Your task to perform on an android device: turn on improve location accuracy Image 0: 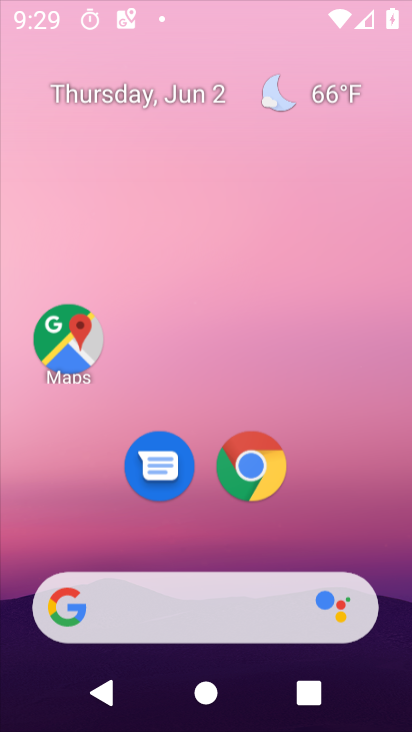
Step 0: press home button
Your task to perform on an android device: turn on improve location accuracy Image 1: 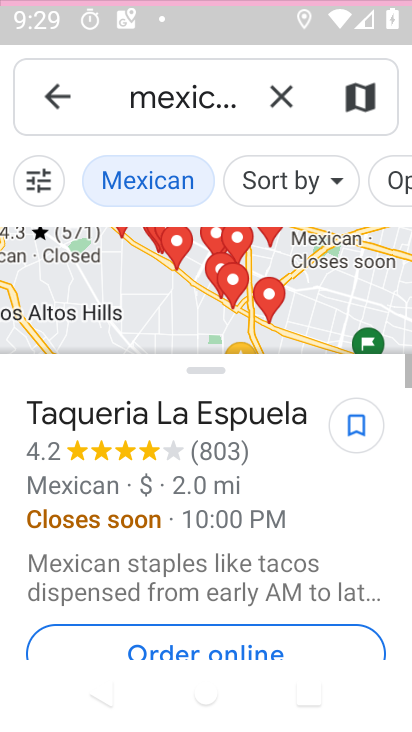
Step 1: drag from (21, 652) to (289, 247)
Your task to perform on an android device: turn on improve location accuracy Image 2: 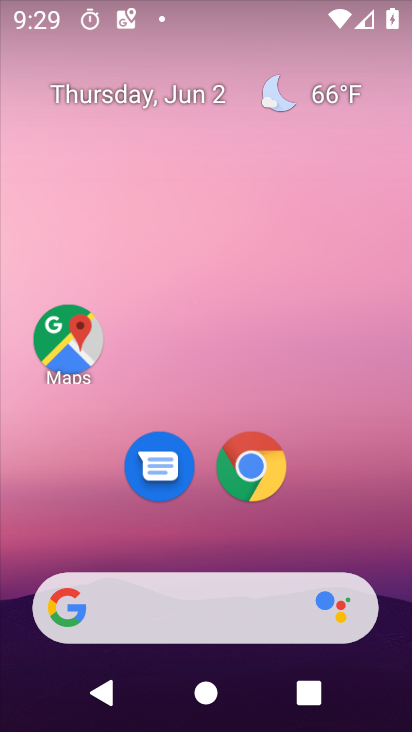
Step 2: drag from (23, 584) to (359, 73)
Your task to perform on an android device: turn on improve location accuracy Image 3: 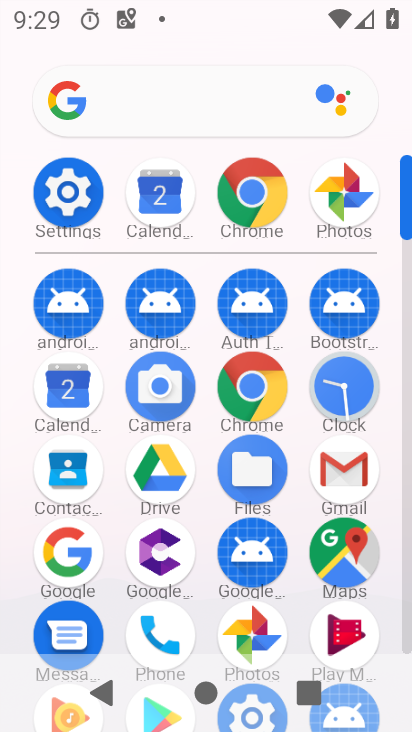
Step 3: click (88, 212)
Your task to perform on an android device: turn on improve location accuracy Image 4: 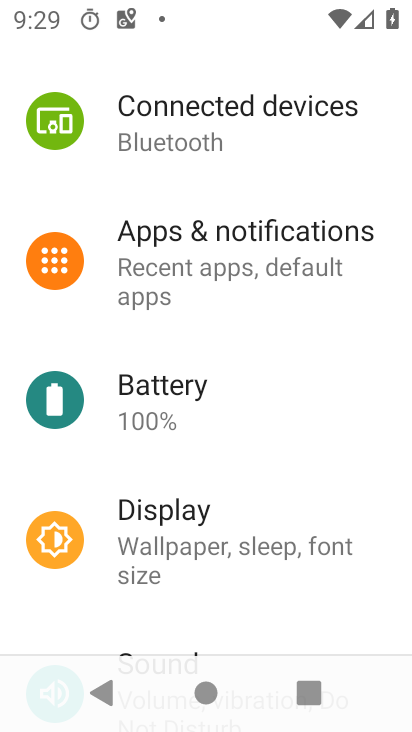
Step 4: drag from (3, 486) to (296, 186)
Your task to perform on an android device: turn on improve location accuracy Image 5: 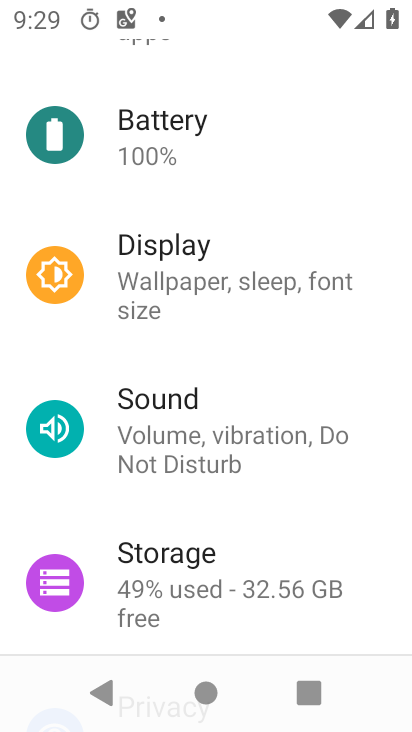
Step 5: drag from (204, 248) to (138, 580)
Your task to perform on an android device: turn on improve location accuracy Image 6: 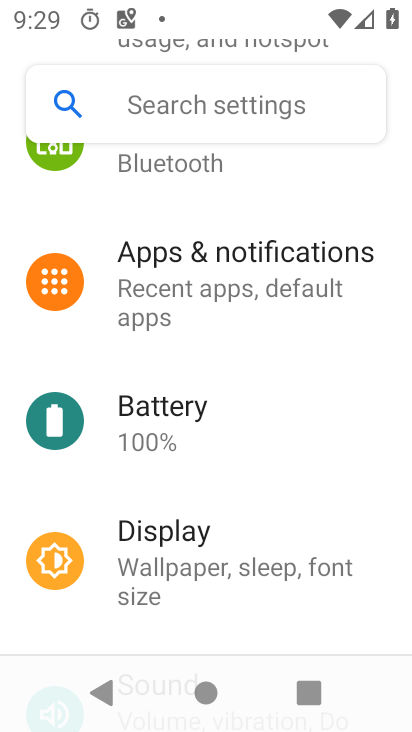
Step 6: drag from (216, 246) to (165, 600)
Your task to perform on an android device: turn on improve location accuracy Image 7: 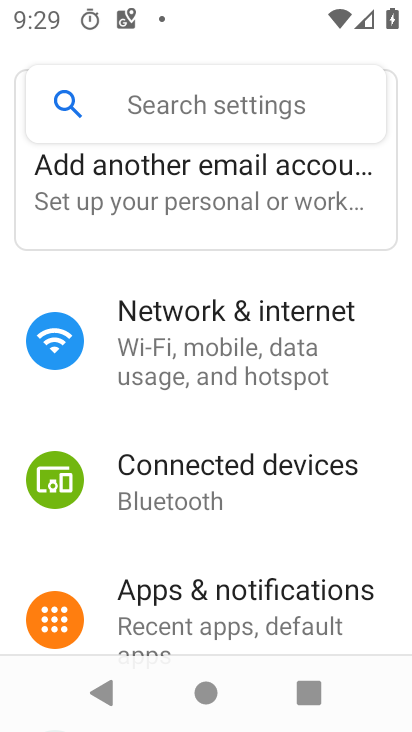
Step 7: drag from (3, 596) to (276, 212)
Your task to perform on an android device: turn on improve location accuracy Image 8: 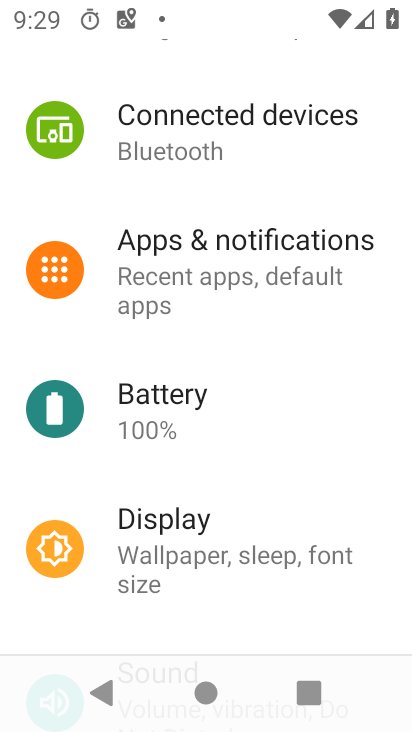
Step 8: drag from (69, 578) to (287, 261)
Your task to perform on an android device: turn on improve location accuracy Image 9: 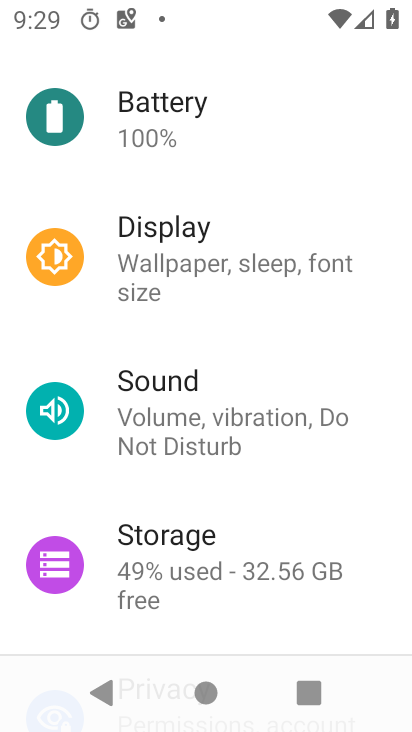
Step 9: drag from (11, 518) to (279, 163)
Your task to perform on an android device: turn on improve location accuracy Image 10: 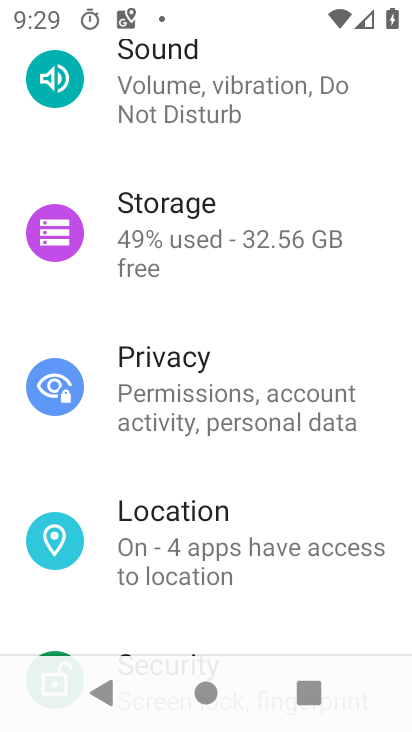
Step 10: click (132, 536)
Your task to perform on an android device: turn on improve location accuracy Image 11: 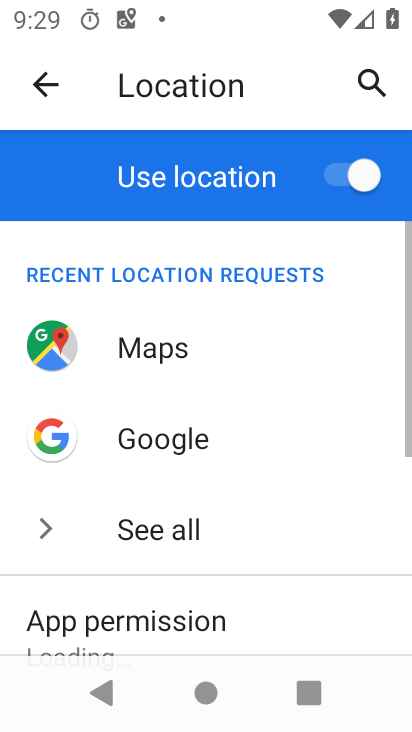
Step 11: drag from (10, 576) to (284, 257)
Your task to perform on an android device: turn on improve location accuracy Image 12: 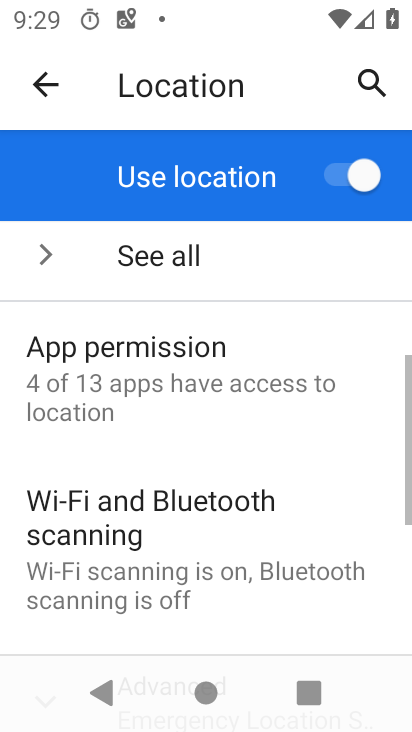
Step 12: drag from (62, 567) to (387, 314)
Your task to perform on an android device: turn on improve location accuracy Image 13: 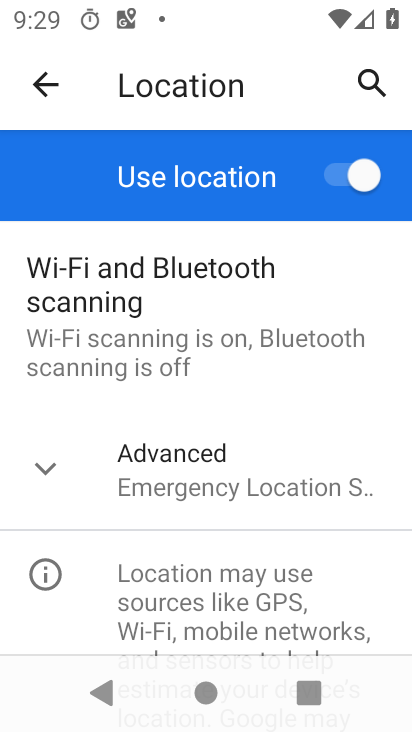
Step 13: click (144, 490)
Your task to perform on an android device: turn on improve location accuracy Image 14: 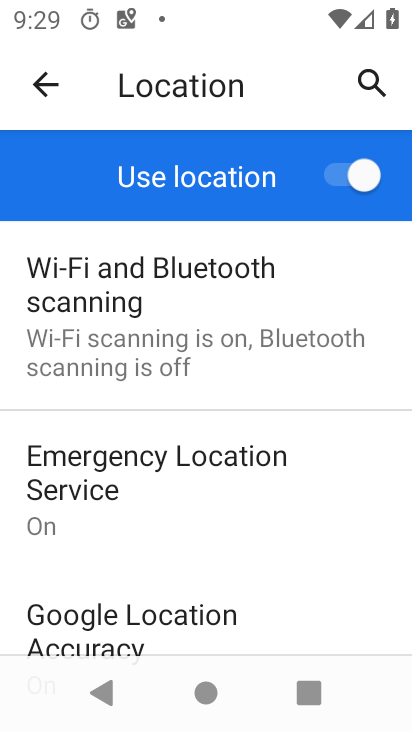
Step 14: drag from (15, 529) to (314, 154)
Your task to perform on an android device: turn on improve location accuracy Image 15: 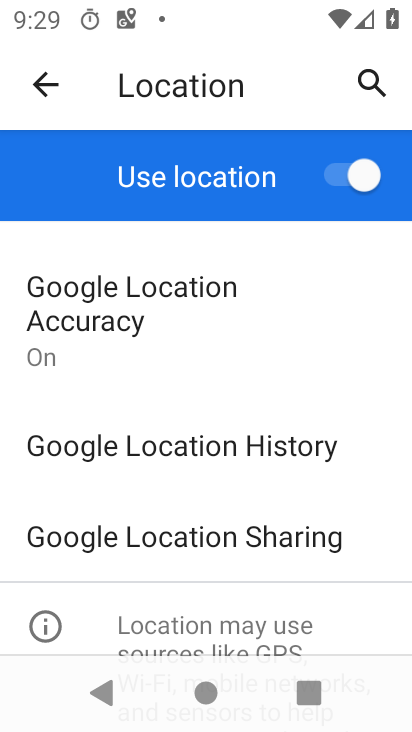
Step 15: click (84, 325)
Your task to perform on an android device: turn on improve location accuracy Image 16: 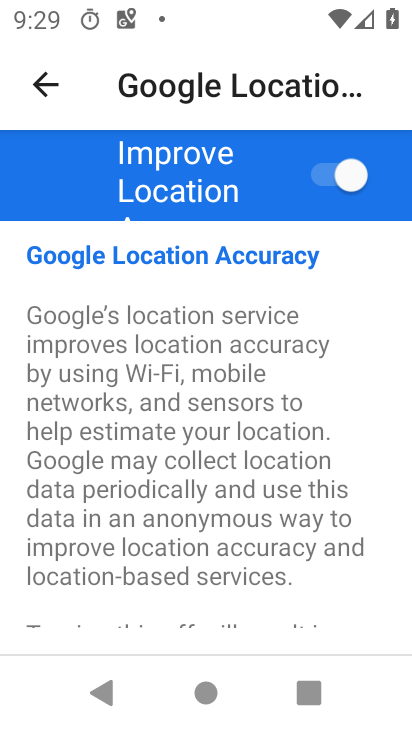
Step 16: task complete